Your task to perform on an android device: open app "HBO Max: Stream TV & Movies" (install if not already installed) Image 0: 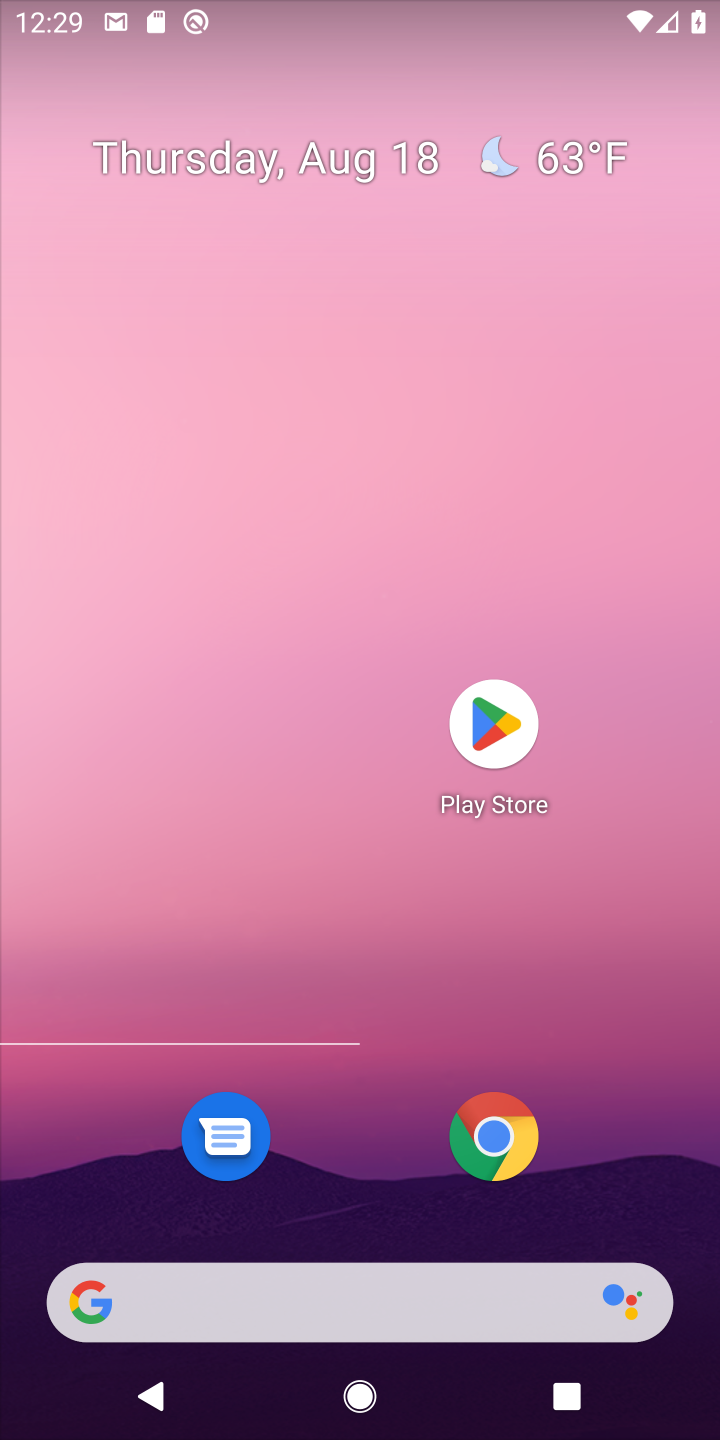
Step 0: press home button
Your task to perform on an android device: open app "HBO Max: Stream TV & Movies" (install if not already installed) Image 1: 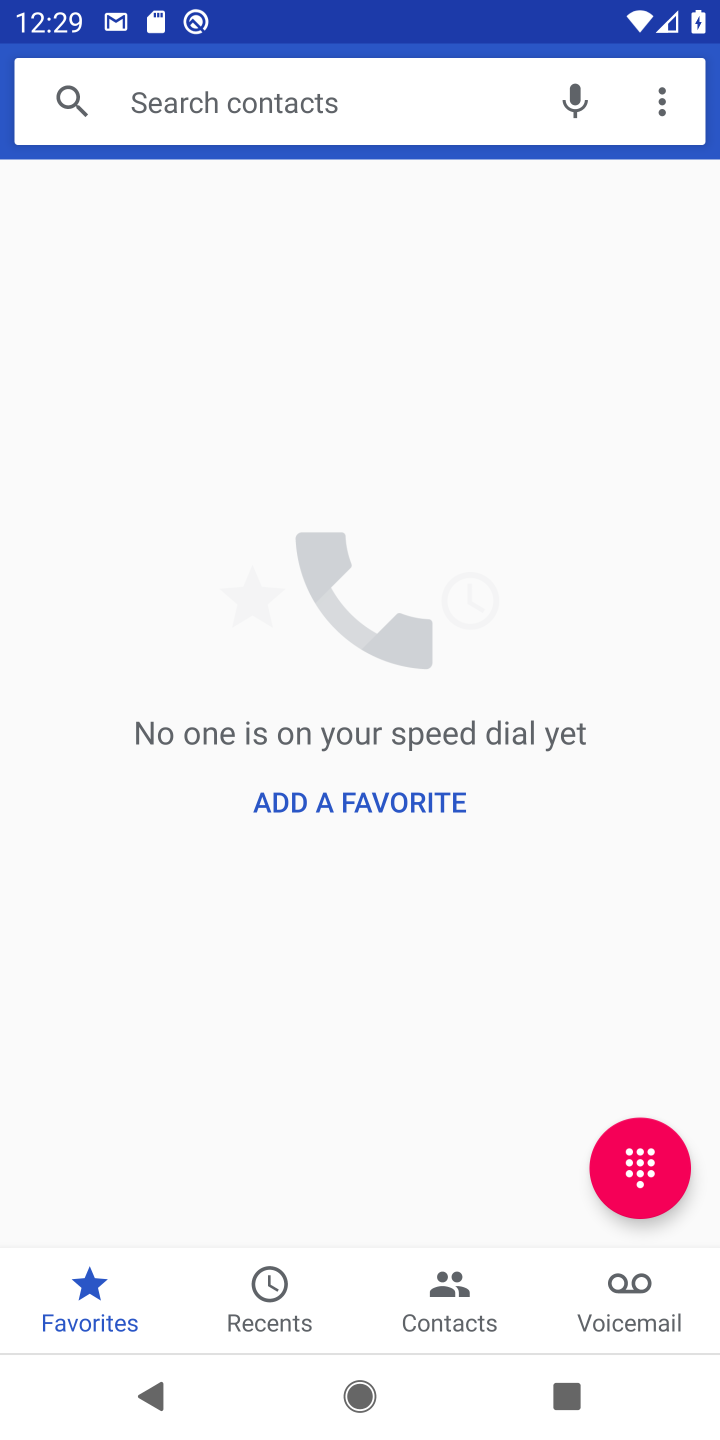
Step 1: click (490, 726)
Your task to perform on an android device: open app "HBO Max: Stream TV & Movies" (install if not already installed) Image 2: 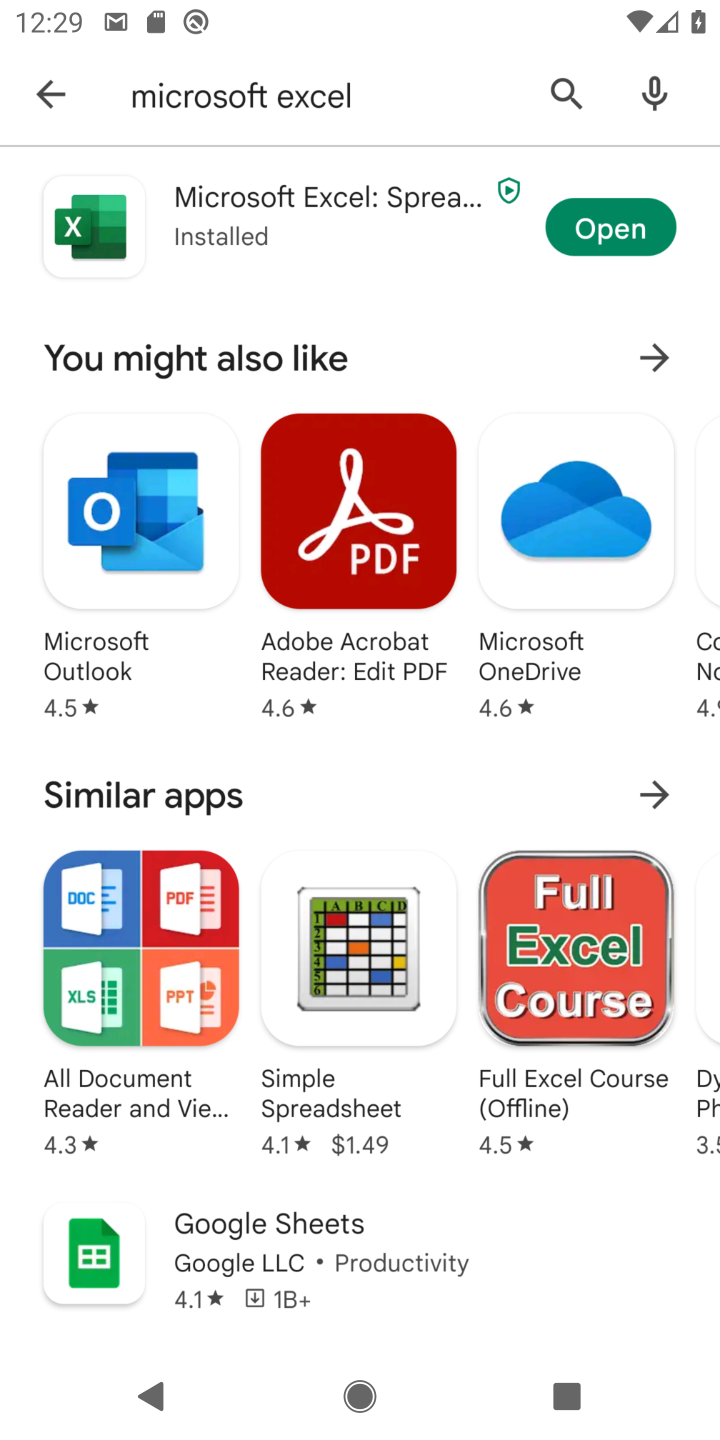
Step 2: click (492, 726)
Your task to perform on an android device: open app "HBO Max: Stream TV & Movies" (install if not already installed) Image 3: 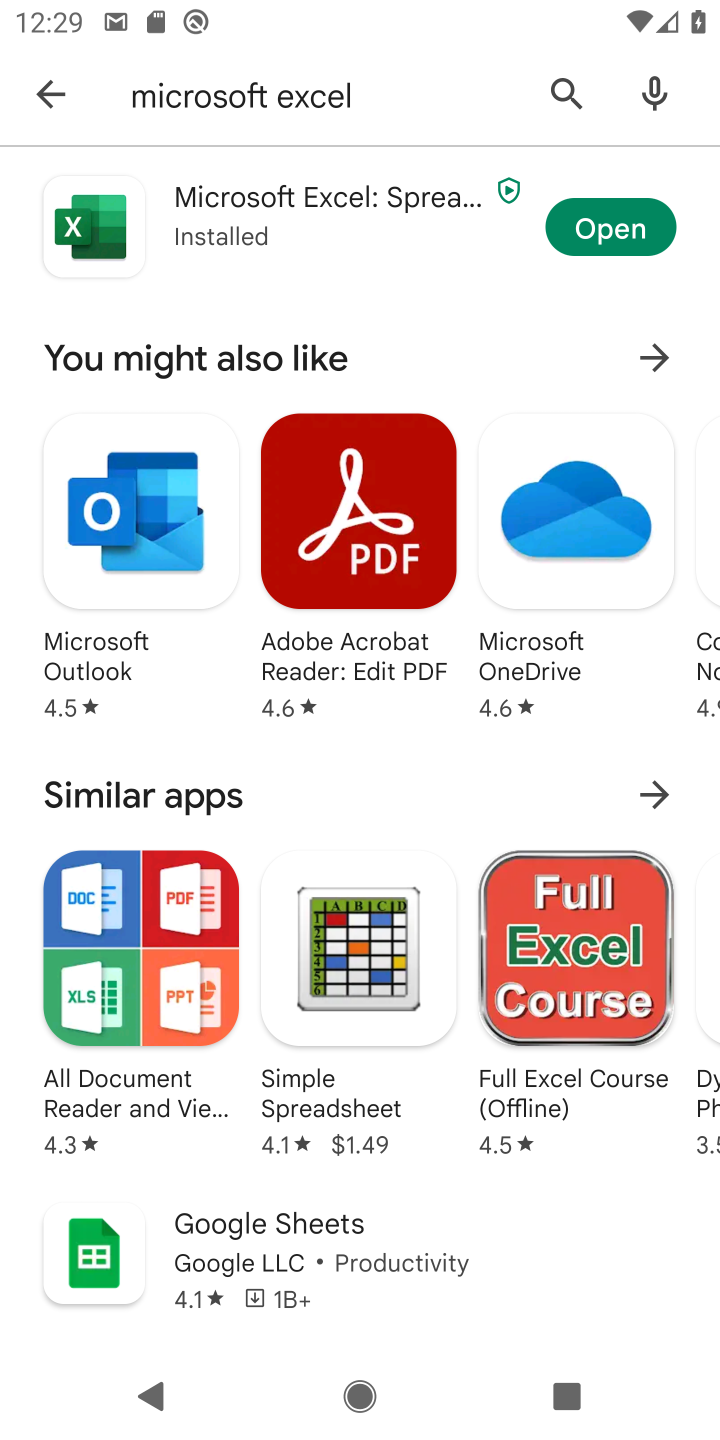
Step 3: click (557, 81)
Your task to perform on an android device: open app "HBO Max: Stream TV & Movies" (install if not already installed) Image 4: 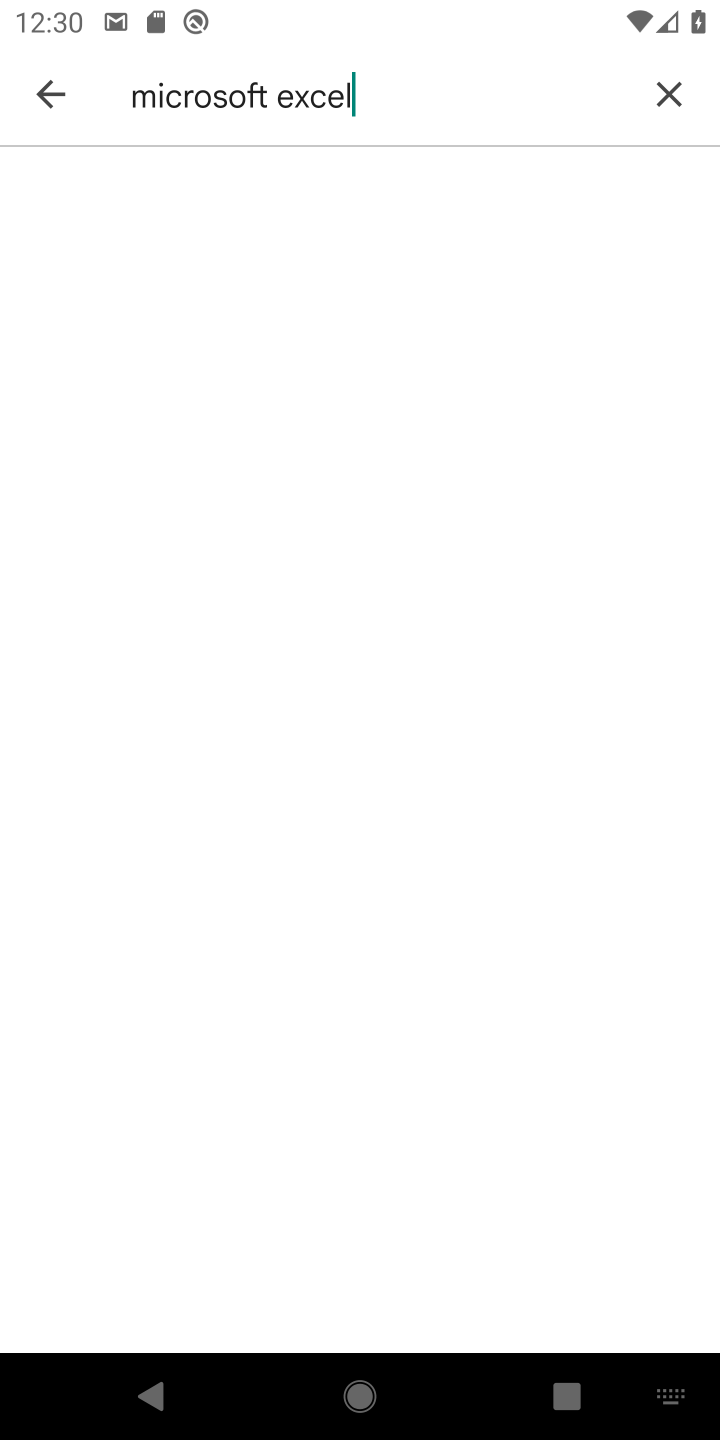
Step 4: click (670, 83)
Your task to perform on an android device: open app "HBO Max: Stream TV & Movies" (install if not already installed) Image 5: 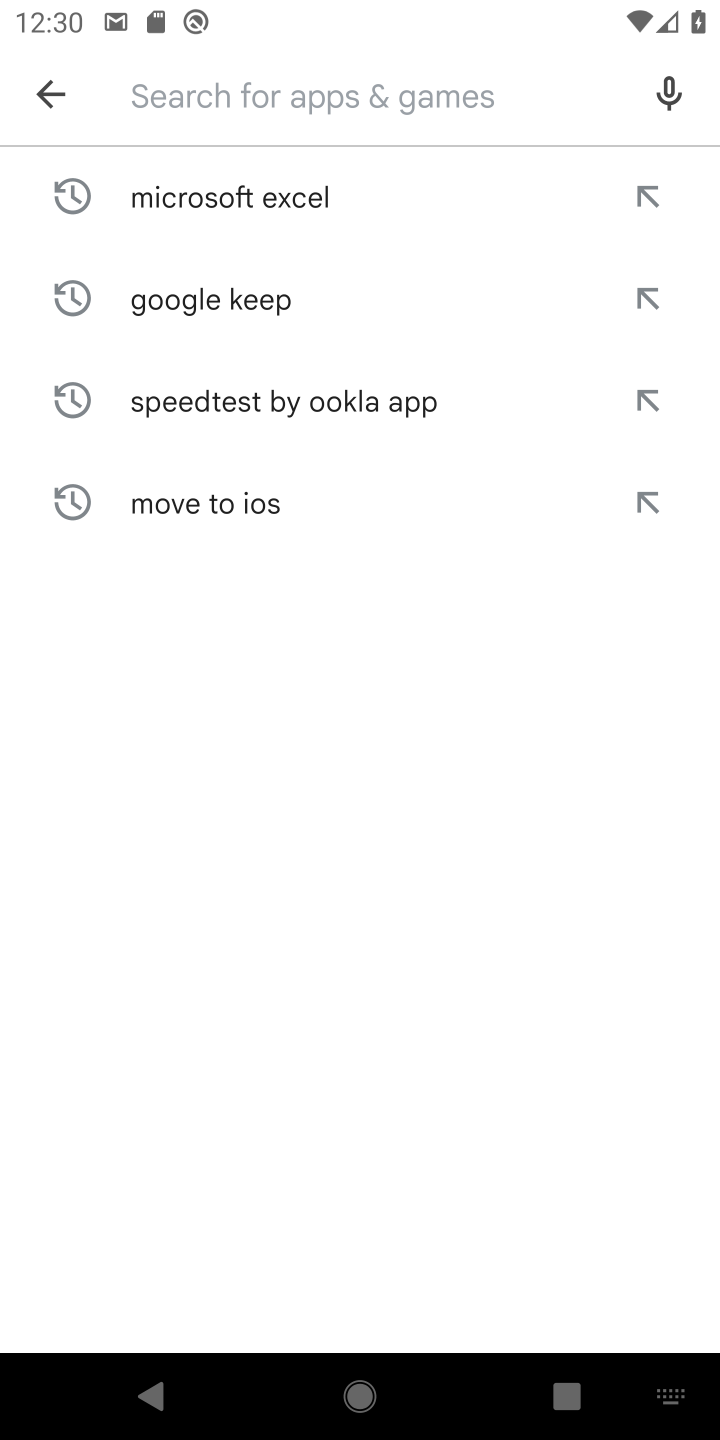
Step 5: type "HBO Max: Stream TV & Movies"
Your task to perform on an android device: open app "HBO Max: Stream TV & Movies" (install if not already installed) Image 6: 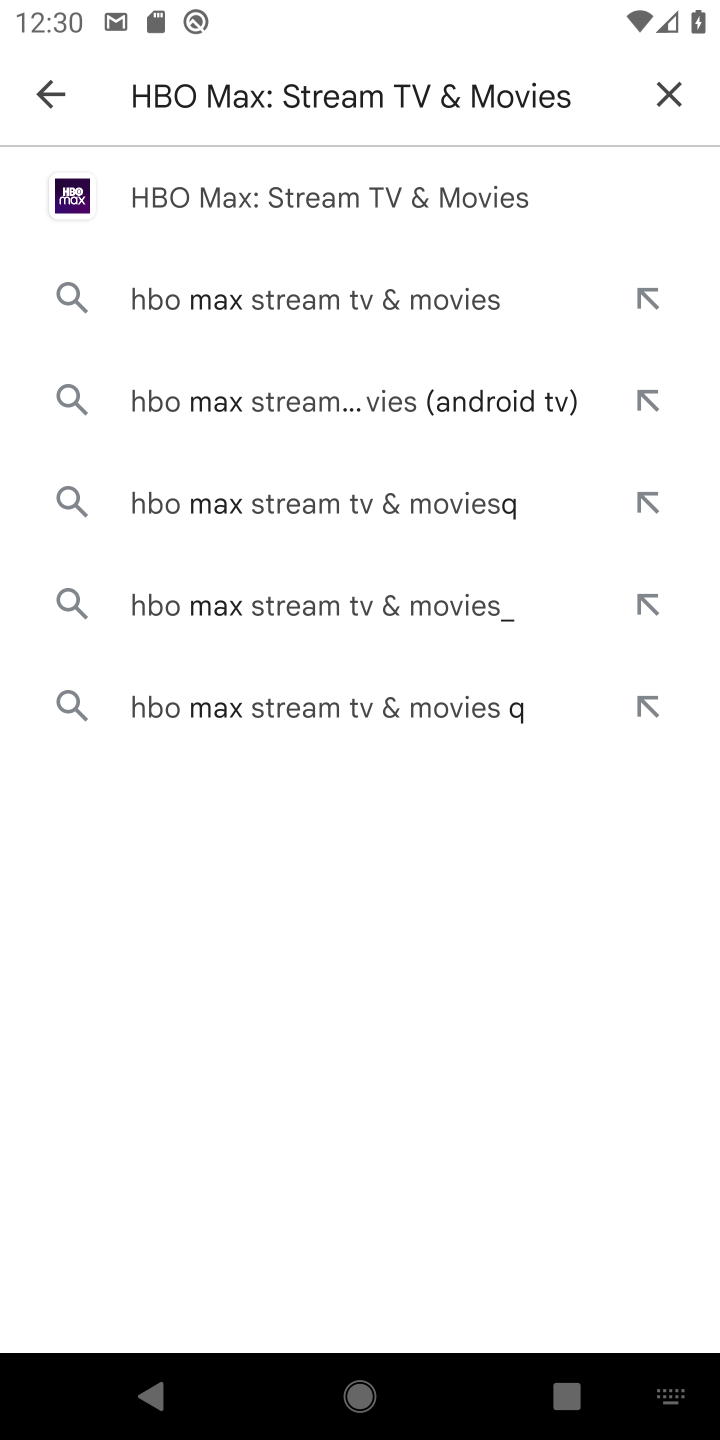
Step 6: click (245, 205)
Your task to perform on an android device: open app "HBO Max: Stream TV & Movies" (install if not already installed) Image 7: 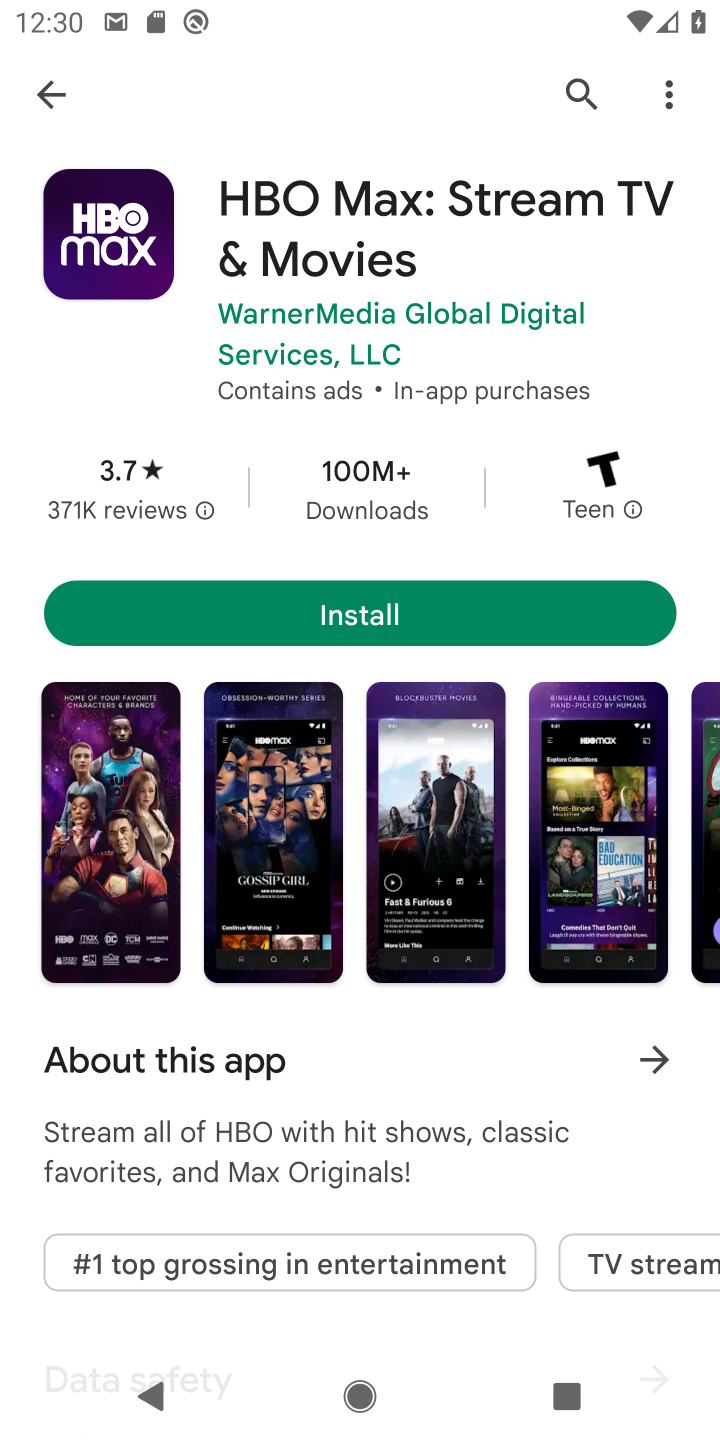
Step 7: click (375, 610)
Your task to perform on an android device: open app "HBO Max: Stream TV & Movies" (install if not already installed) Image 8: 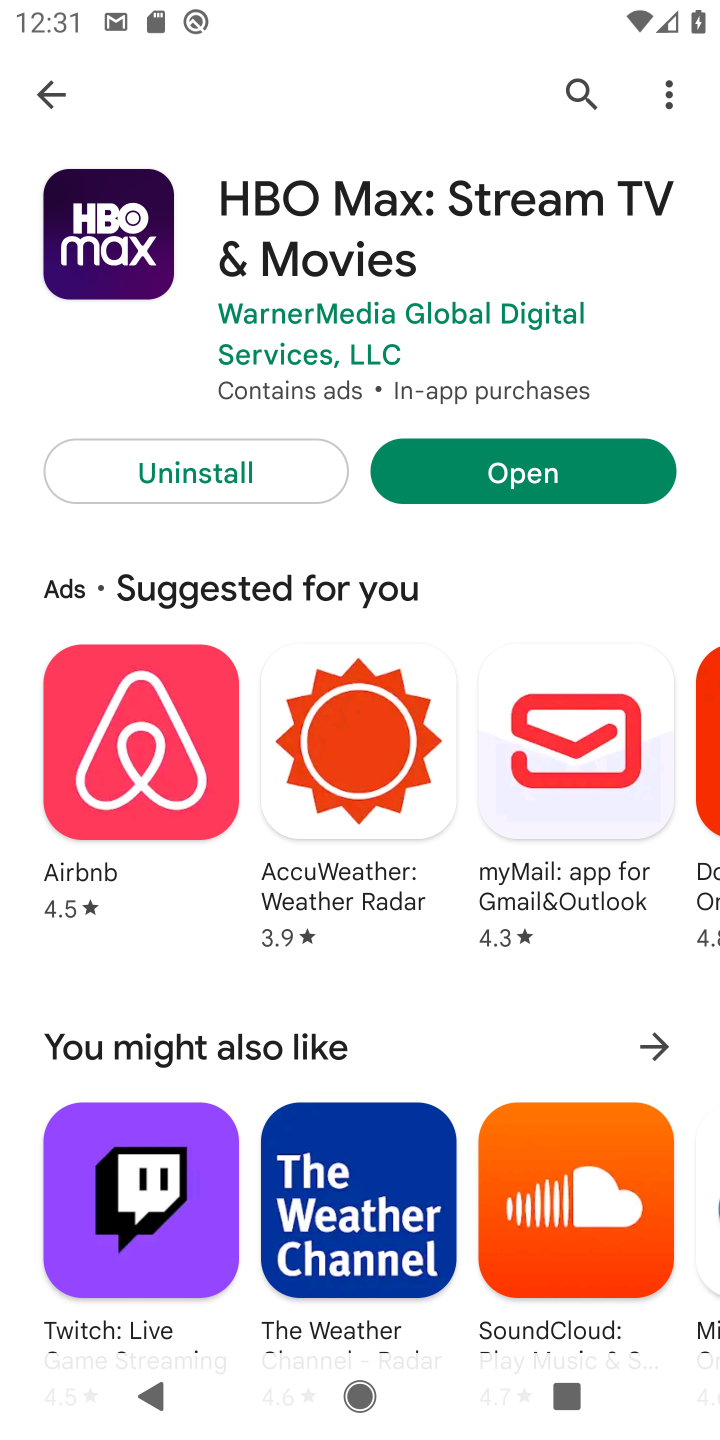
Step 8: click (498, 491)
Your task to perform on an android device: open app "HBO Max: Stream TV & Movies" (install if not already installed) Image 9: 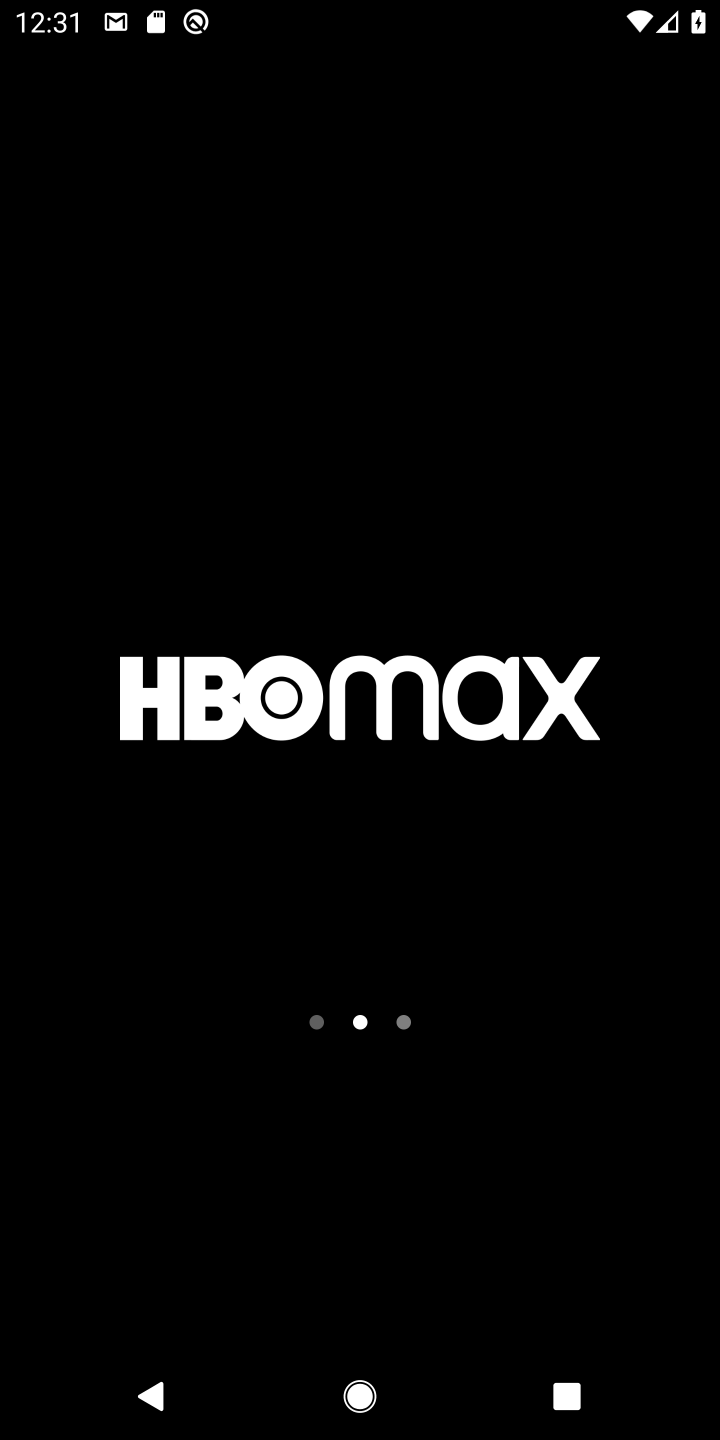
Step 9: task complete